Your task to perform on an android device: see tabs open on other devices in the chrome app Image 0: 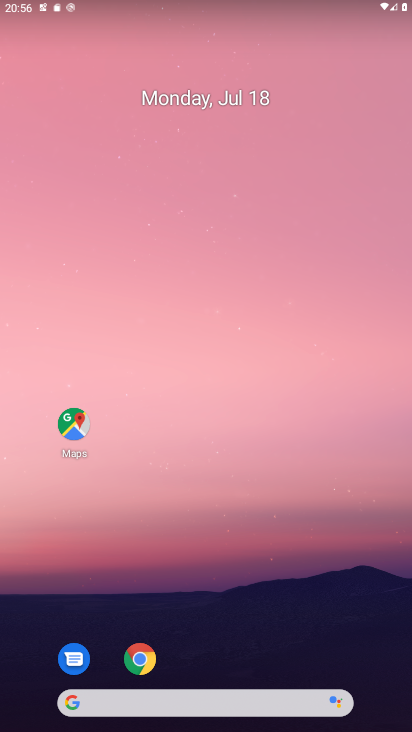
Step 0: drag from (204, 565) to (216, 210)
Your task to perform on an android device: see tabs open on other devices in the chrome app Image 1: 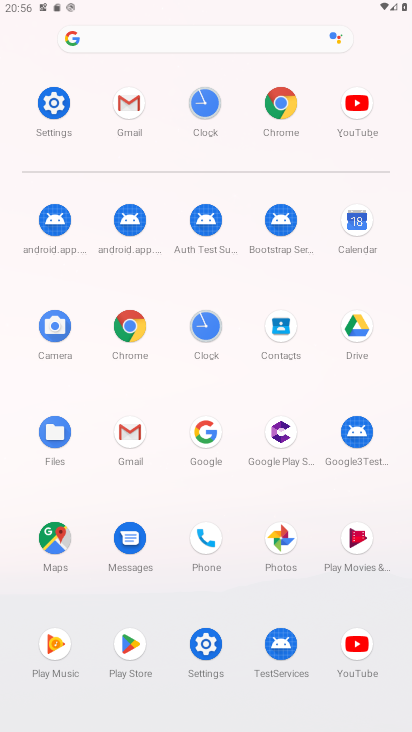
Step 1: click (127, 325)
Your task to perform on an android device: see tabs open on other devices in the chrome app Image 2: 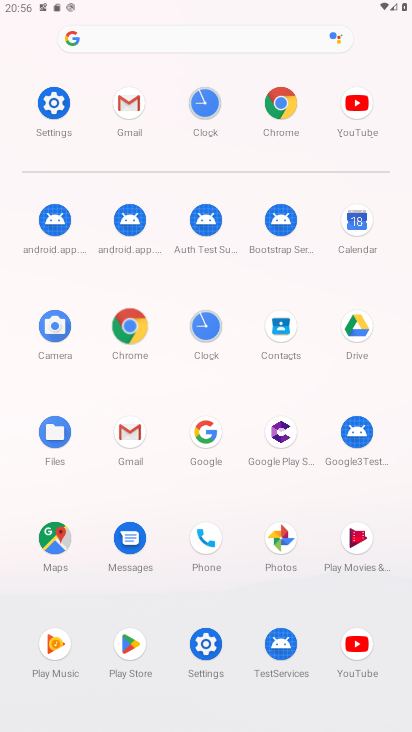
Step 2: click (127, 321)
Your task to perform on an android device: see tabs open on other devices in the chrome app Image 3: 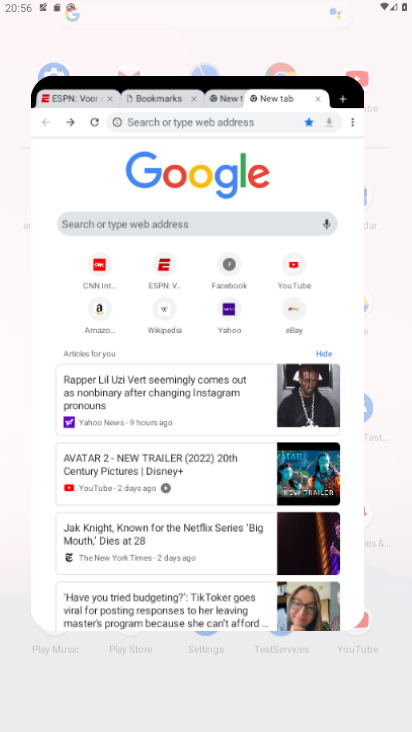
Step 3: click (132, 323)
Your task to perform on an android device: see tabs open on other devices in the chrome app Image 4: 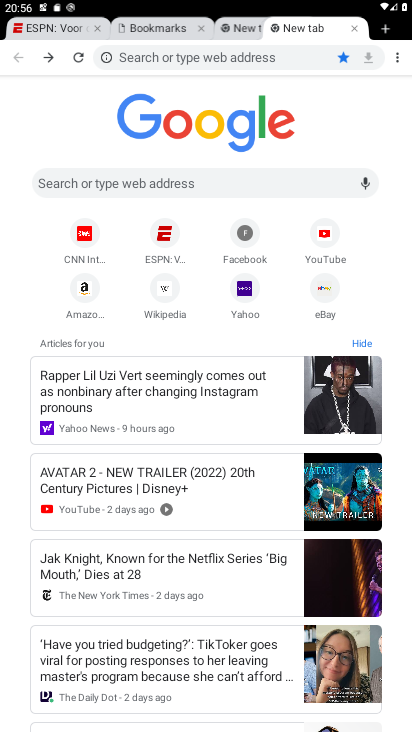
Step 4: drag from (398, 48) to (271, 141)
Your task to perform on an android device: see tabs open on other devices in the chrome app Image 5: 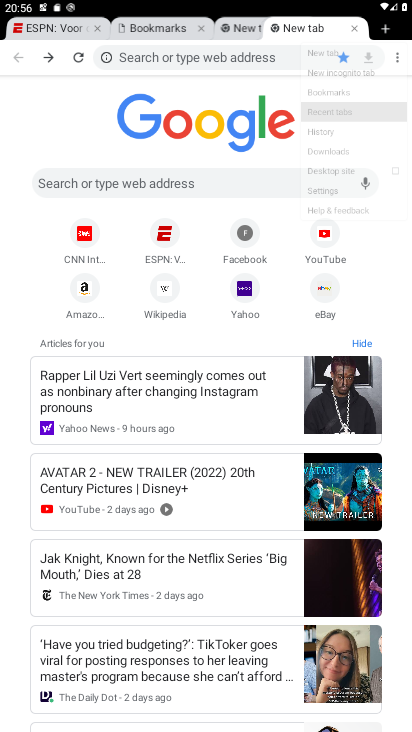
Step 5: click (281, 132)
Your task to perform on an android device: see tabs open on other devices in the chrome app Image 6: 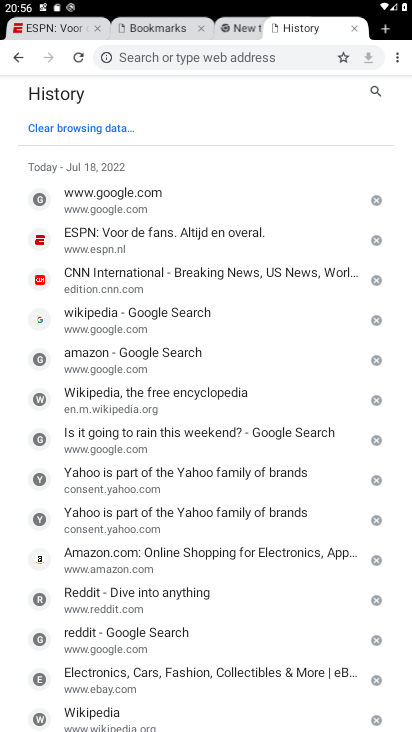
Step 6: task complete